Your task to perform on an android device: turn on priority inbox in the gmail app Image 0: 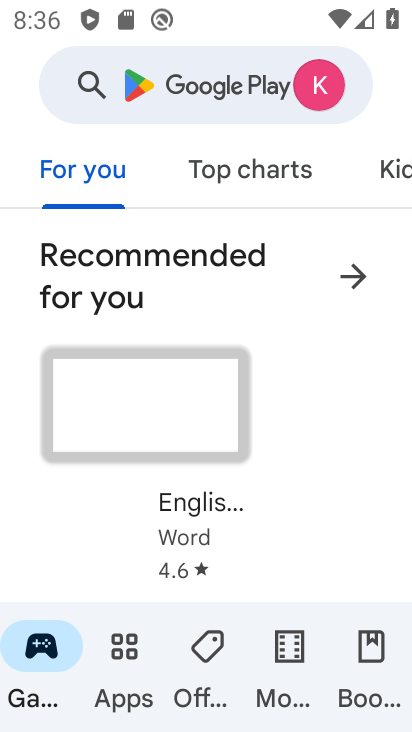
Step 0: press home button
Your task to perform on an android device: turn on priority inbox in the gmail app Image 1: 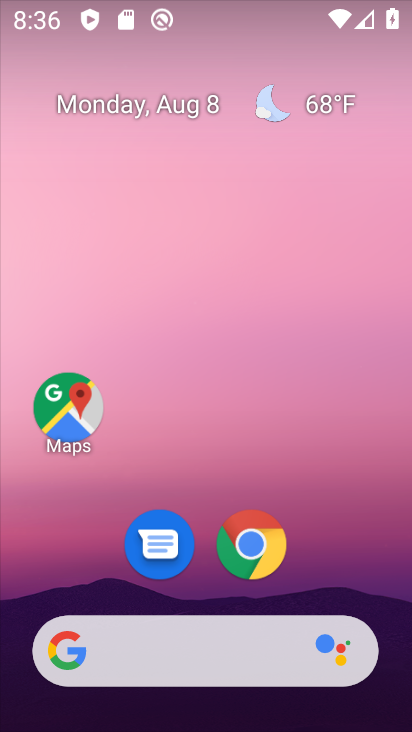
Step 1: drag from (331, 589) to (330, 6)
Your task to perform on an android device: turn on priority inbox in the gmail app Image 2: 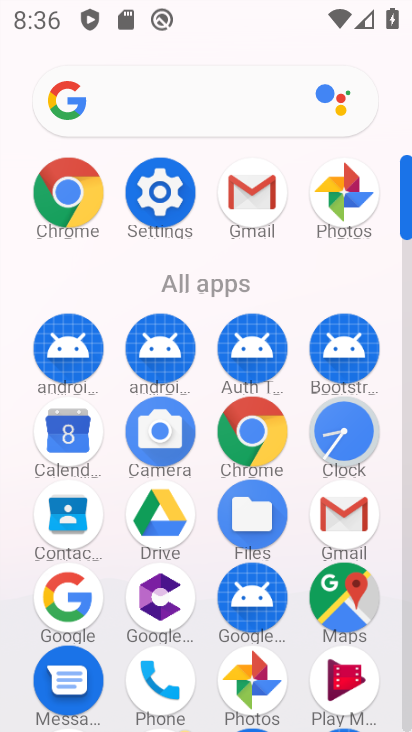
Step 2: click (251, 188)
Your task to perform on an android device: turn on priority inbox in the gmail app Image 3: 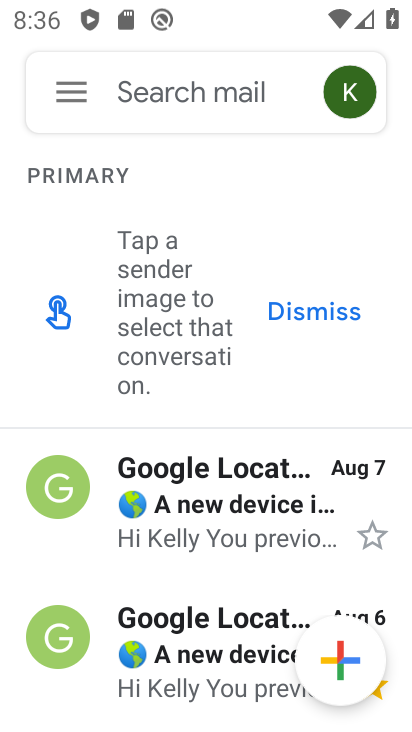
Step 3: click (81, 91)
Your task to perform on an android device: turn on priority inbox in the gmail app Image 4: 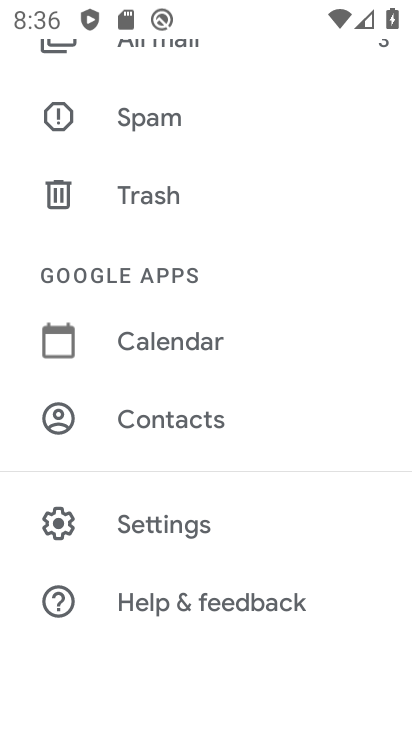
Step 4: click (104, 515)
Your task to perform on an android device: turn on priority inbox in the gmail app Image 5: 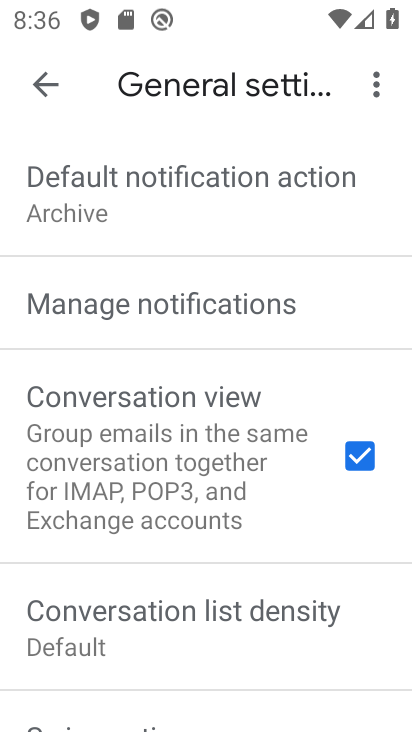
Step 5: click (43, 81)
Your task to perform on an android device: turn on priority inbox in the gmail app Image 6: 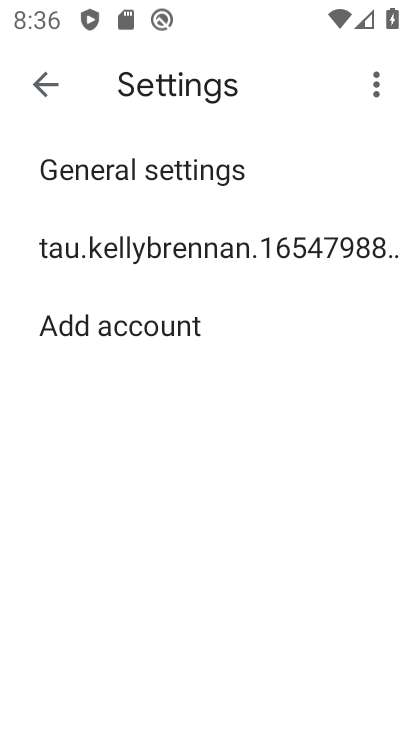
Step 6: click (191, 250)
Your task to perform on an android device: turn on priority inbox in the gmail app Image 7: 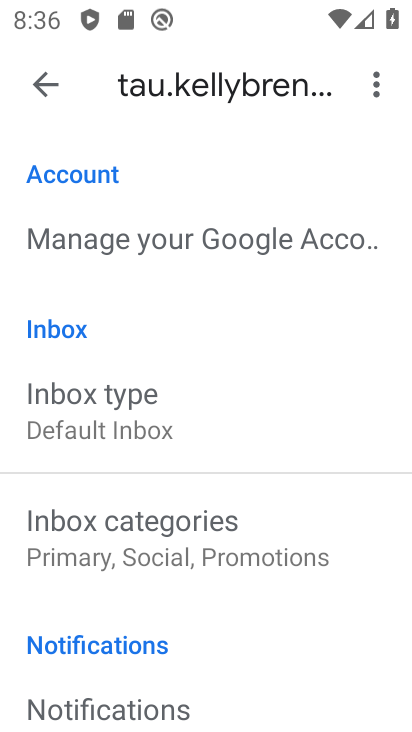
Step 7: click (195, 404)
Your task to perform on an android device: turn on priority inbox in the gmail app Image 8: 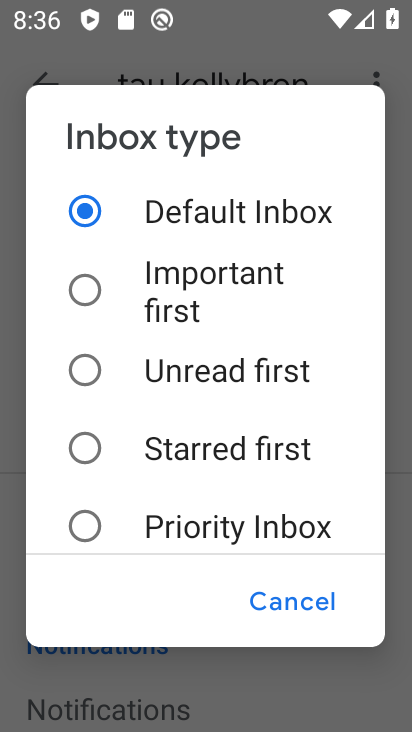
Step 8: click (85, 517)
Your task to perform on an android device: turn on priority inbox in the gmail app Image 9: 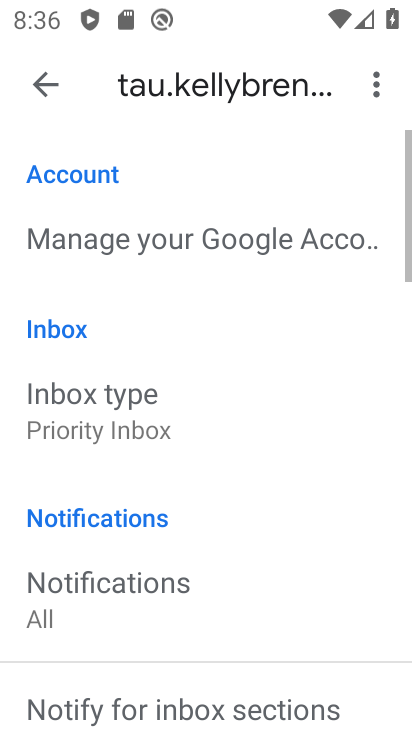
Step 9: task complete